Your task to perform on an android device: Open Google Chrome and open the bookmarks view Image 0: 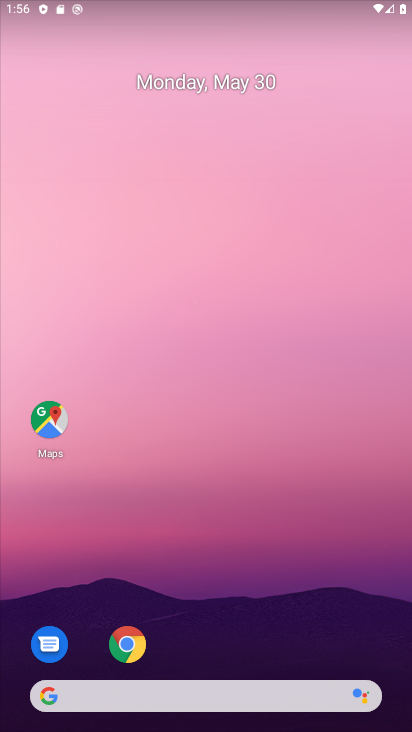
Step 0: press home button
Your task to perform on an android device: Open Google Chrome and open the bookmarks view Image 1: 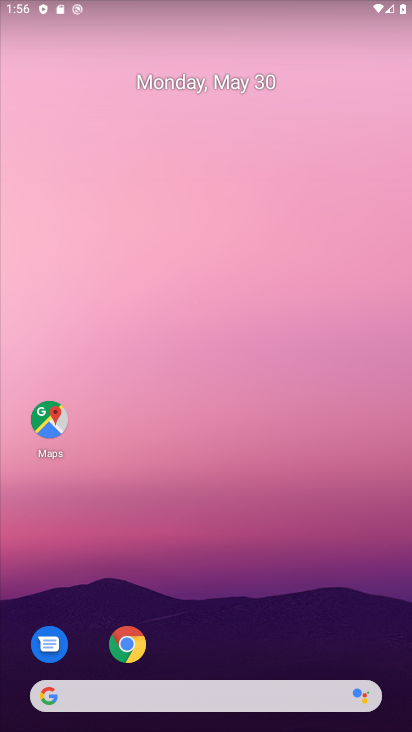
Step 1: click (124, 645)
Your task to perform on an android device: Open Google Chrome and open the bookmarks view Image 2: 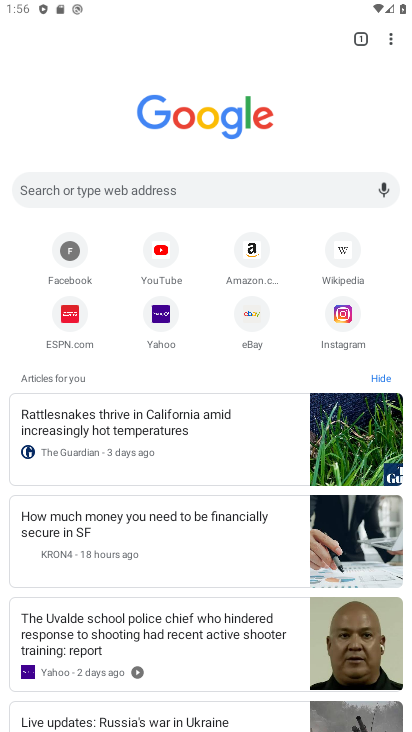
Step 2: click (391, 39)
Your task to perform on an android device: Open Google Chrome and open the bookmarks view Image 3: 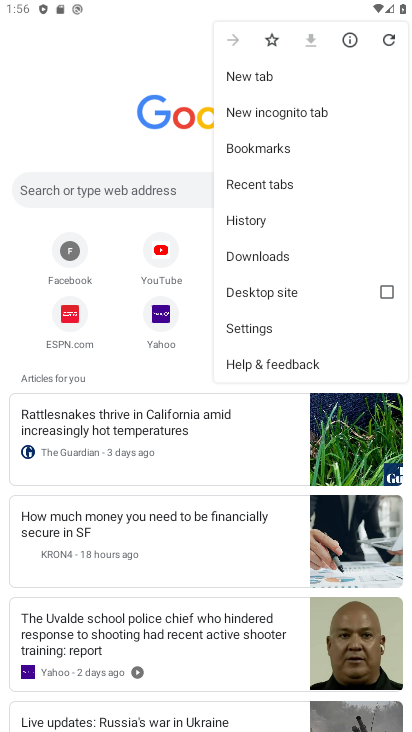
Step 3: click (261, 155)
Your task to perform on an android device: Open Google Chrome and open the bookmarks view Image 4: 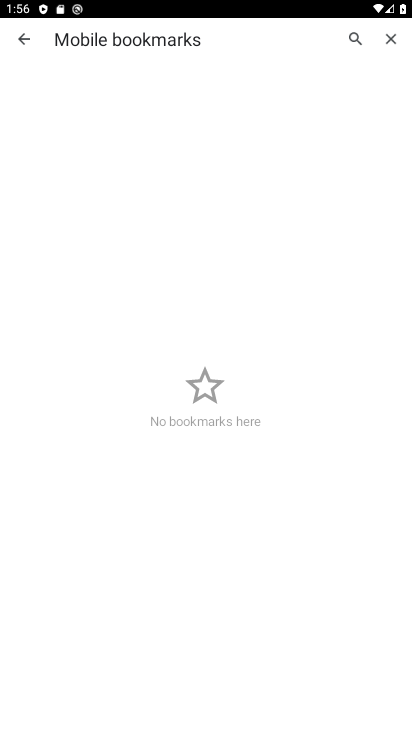
Step 4: task complete